Your task to perform on an android device: visit the assistant section in the google photos Image 0: 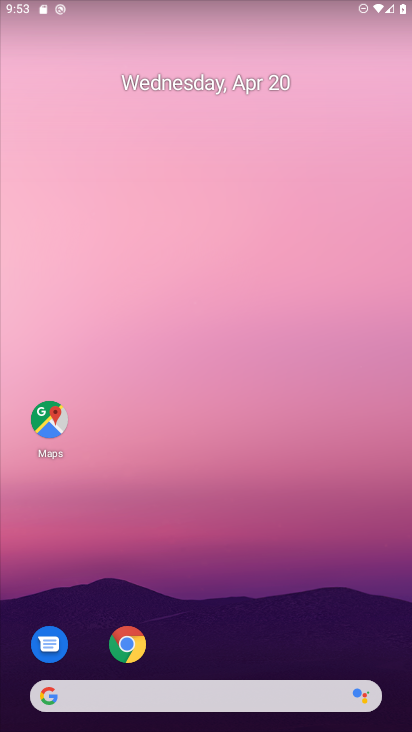
Step 0: drag from (347, 629) to (219, 48)
Your task to perform on an android device: visit the assistant section in the google photos Image 1: 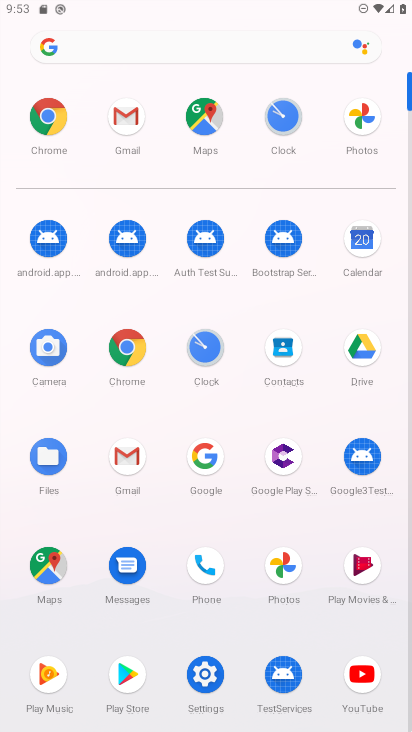
Step 1: click (277, 563)
Your task to perform on an android device: visit the assistant section in the google photos Image 2: 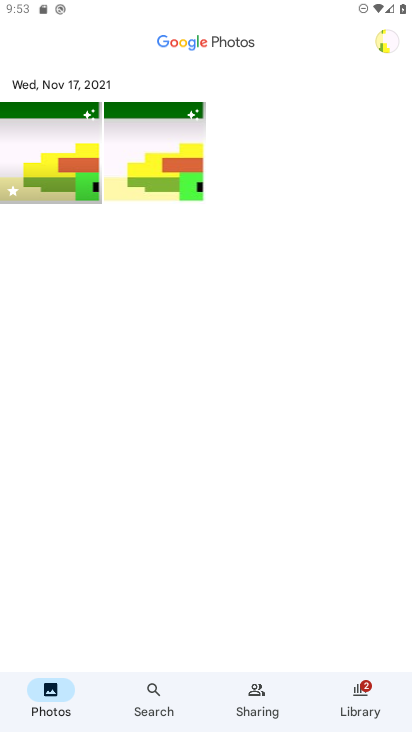
Step 2: click (389, 38)
Your task to perform on an android device: visit the assistant section in the google photos Image 3: 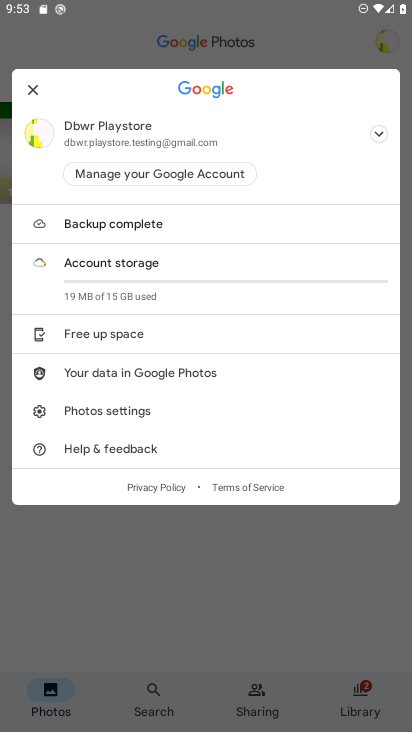
Step 3: task complete